Your task to perform on an android device: move an email to a new category in the gmail app Image 0: 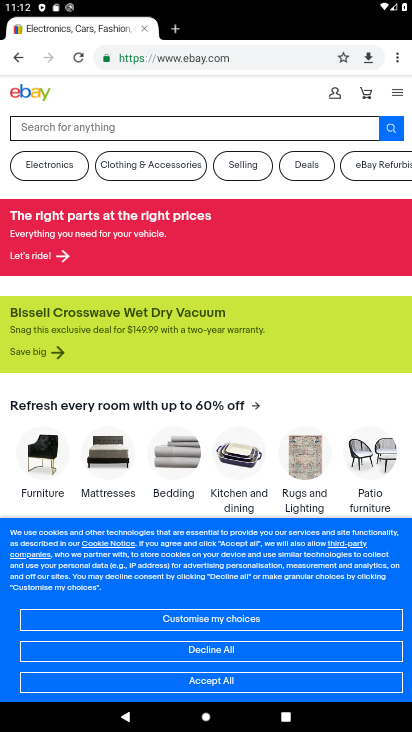
Step 0: press home button
Your task to perform on an android device: move an email to a new category in the gmail app Image 1: 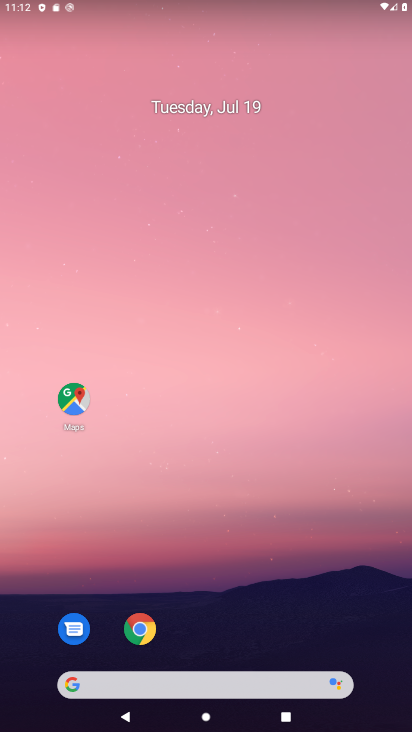
Step 1: drag from (319, 594) to (214, 39)
Your task to perform on an android device: move an email to a new category in the gmail app Image 2: 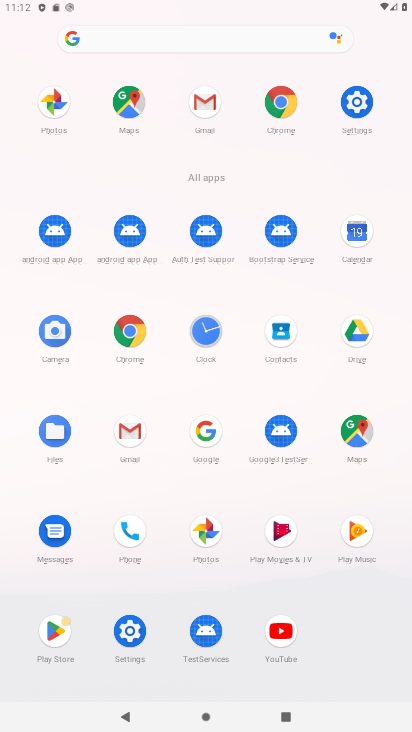
Step 2: click (126, 423)
Your task to perform on an android device: move an email to a new category in the gmail app Image 3: 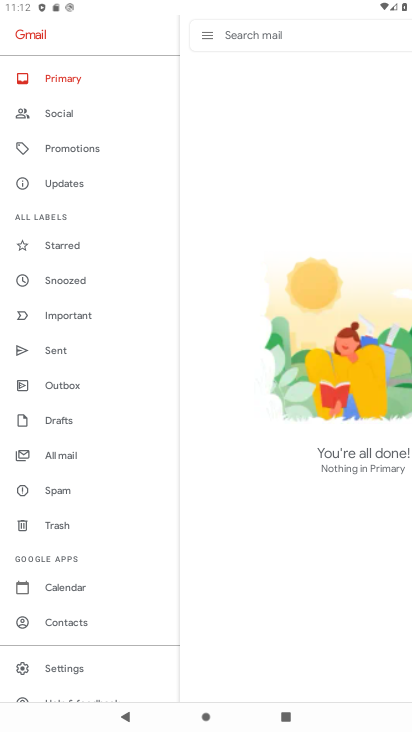
Step 3: drag from (74, 560) to (118, 181)
Your task to perform on an android device: move an email to a new category in the gmail app Image 4: 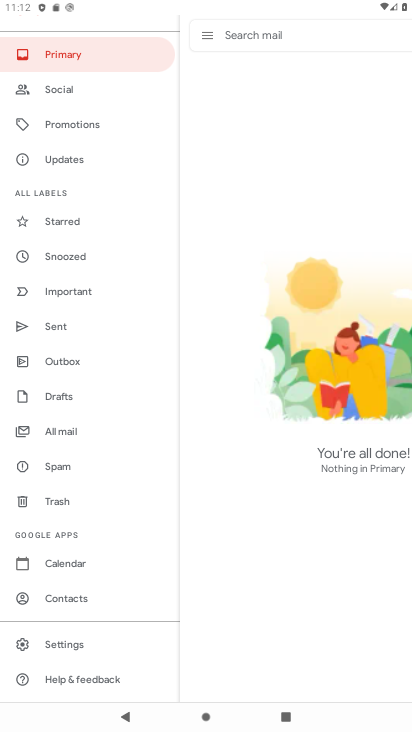
Step 4: click (55, 420)
Your task to perform on an android device: move an email to a new category in the gmail app Image 5: 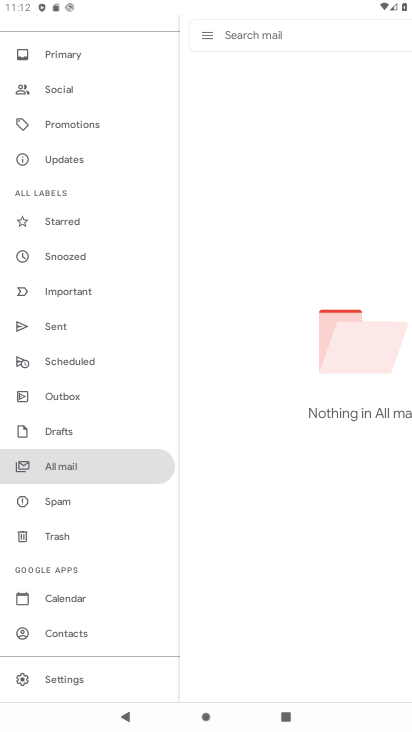
Step 5: task complete